Your task to perform on an android device: Open Google Maps and go to "Timeline" Image 0: 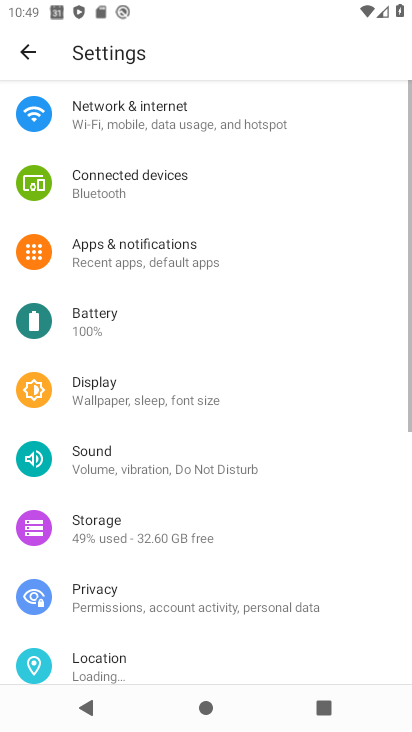
Step 0: press home button
Your task to perform on an android device: Open Google Maps and go to "Timeline" Image 1: 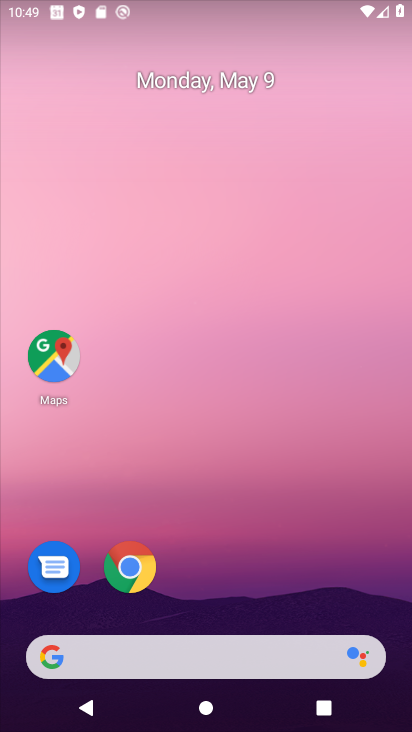
Step 1: drag from (386, 630) to (266, 71)
Your task to perform on an android device: Open Google Maps and go to "Timeline" Image 2: 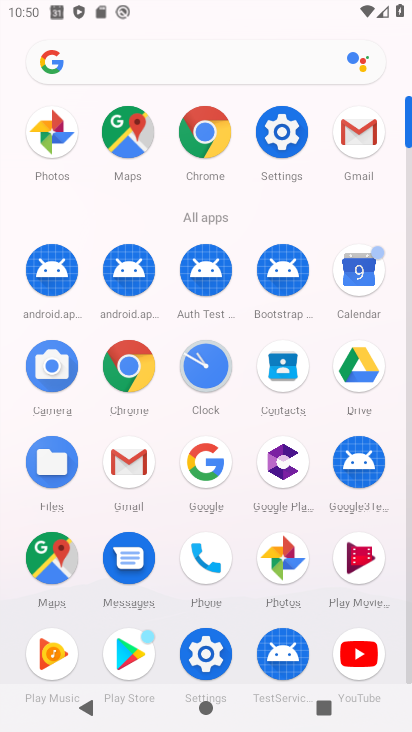
Step 2: click (65, 560)
Your task to perform on an android device: Open Google Maps and go to "Timeline" Image 3: 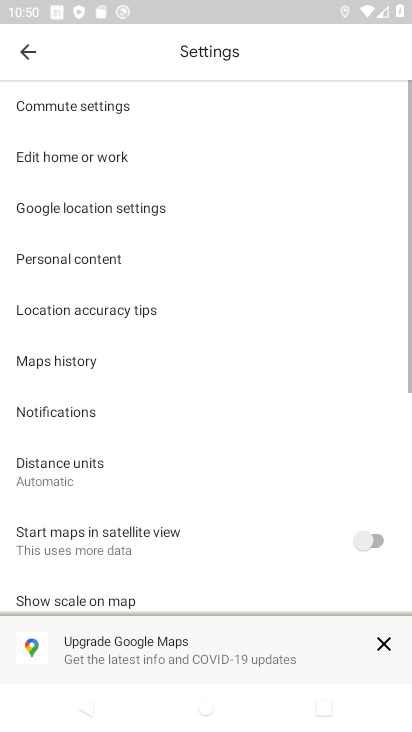
Step 3: press back button
Your task to perform on an android device: Open Google Maps and go to "Timeline" Image 4: 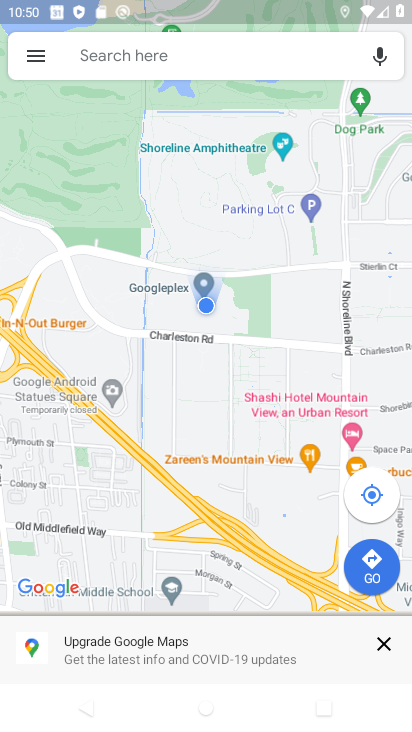
Step 4: click (37, 60)
Your task to perform on an android device: Open Google Maps and go to "Timeline" Image 5: 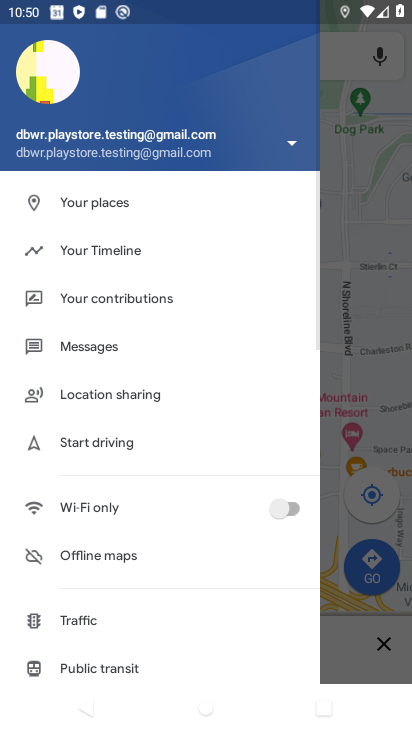
Step 5: click (90, 260)
Your task to perform on an android device: Open Google Maps and go to "Timeline" Image 6: 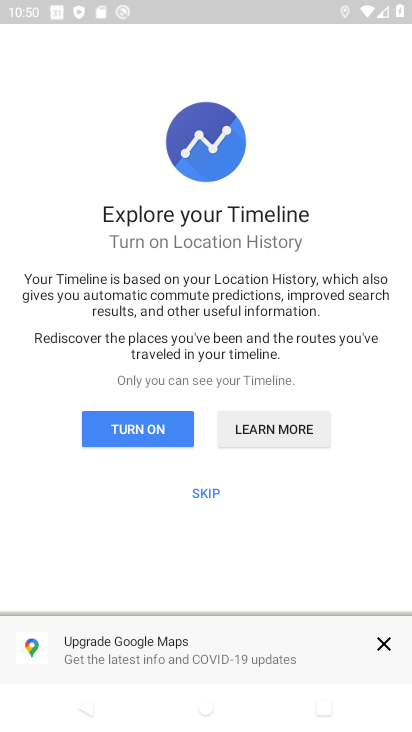
Step 6: task complete